Your task to perform on an android device: What is the recent news? Image 0: 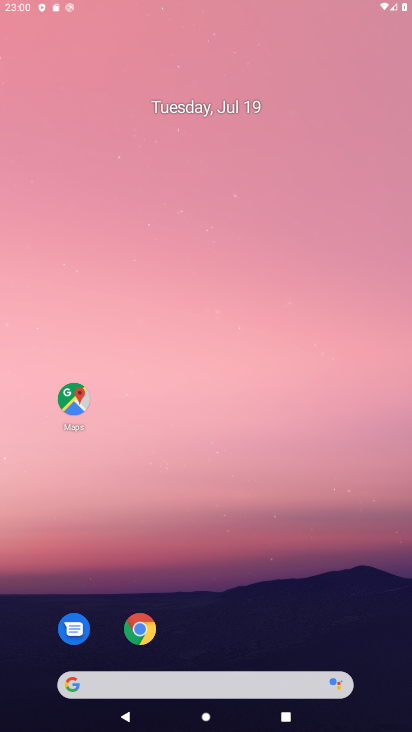
Step 0: press home button
Your task to perform on an android device: What is the recent news? Image 1: 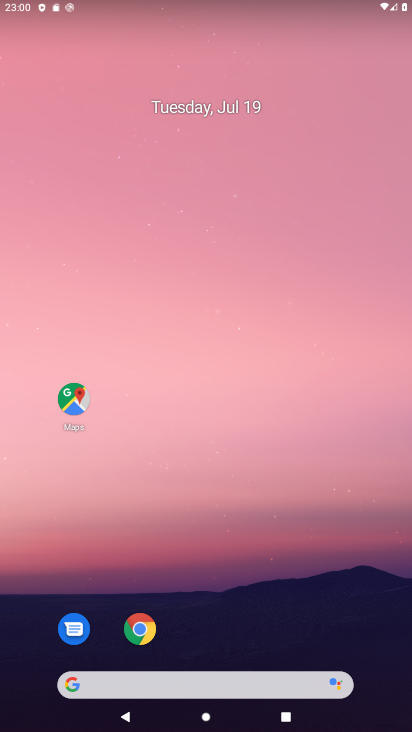
Step 1: task complete